Your task to perform on an android device: Check the weather Image 0: 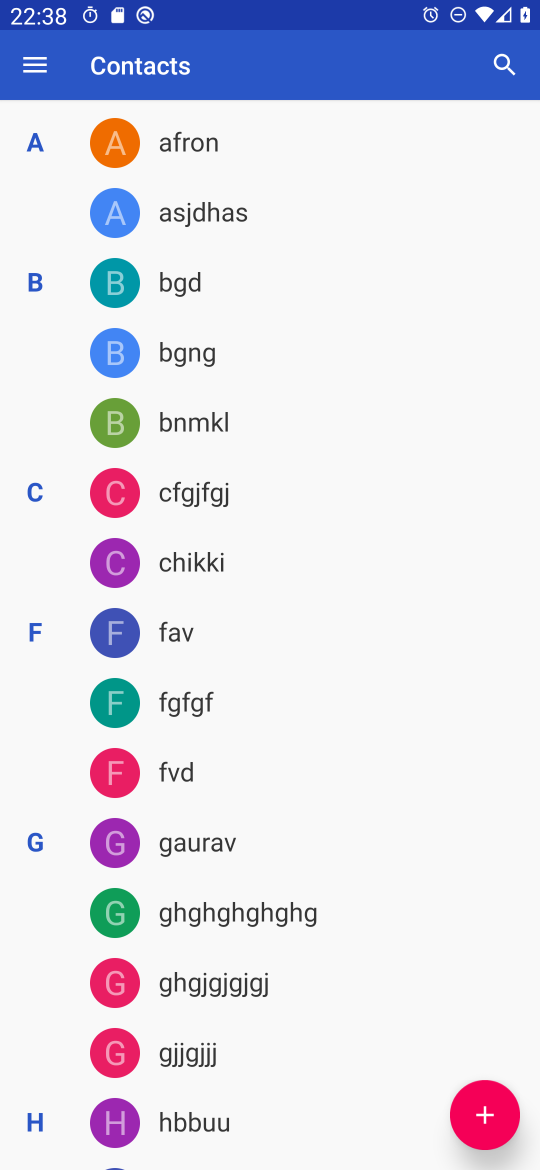
Step 0: press home button
Your task to perform on an android device: Check the weather Image 1: 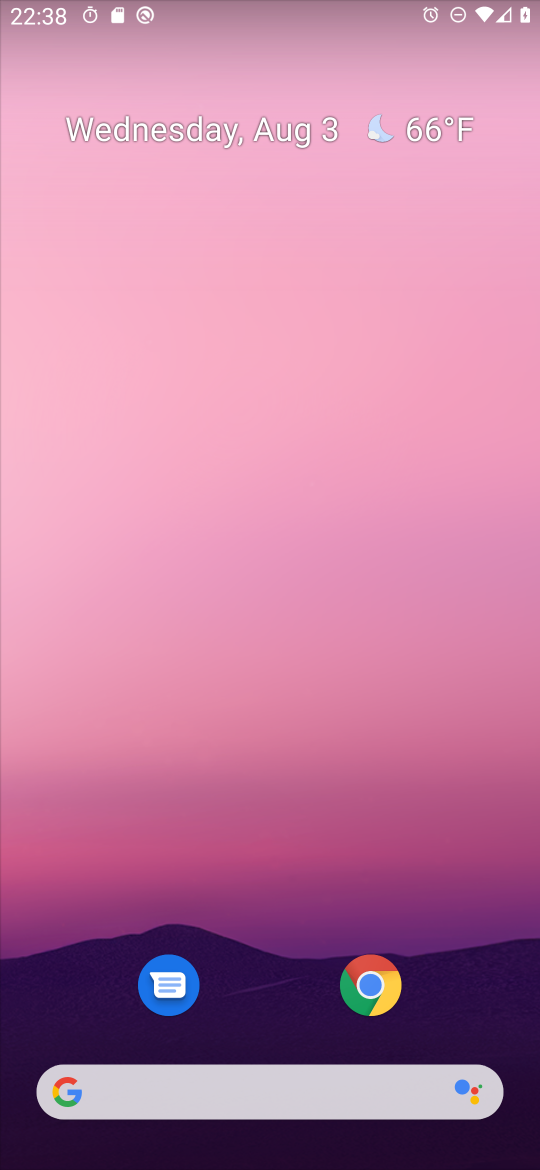
Step 1: drag from (258, 976) to (281, 307)
Your task to perform on an android device: Check the weather Image 2: 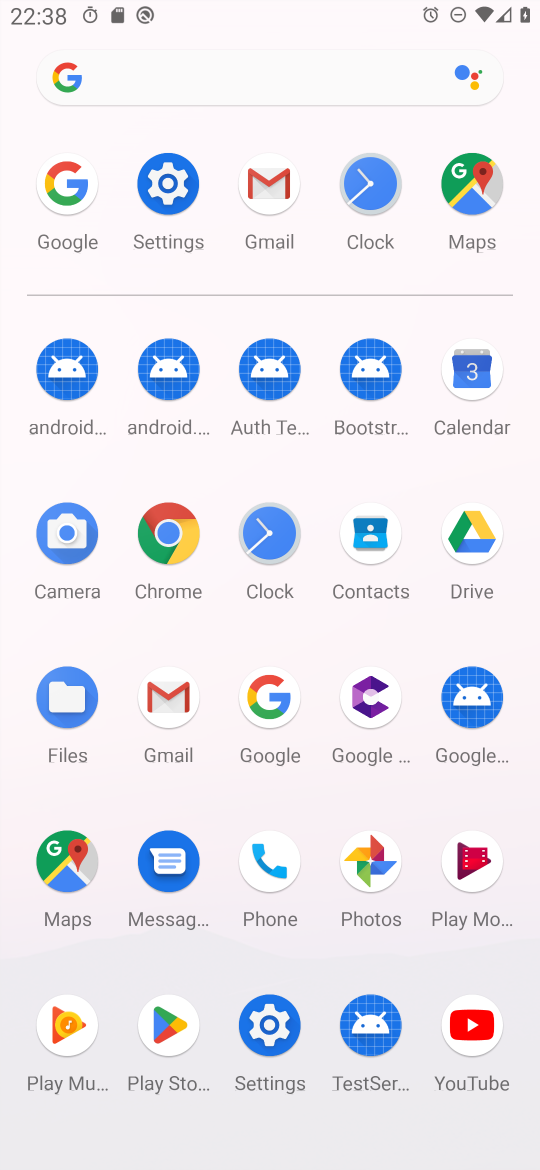
Step 2: click (72, 197)
Your task to perform on an android device: Check the weather Image 3: 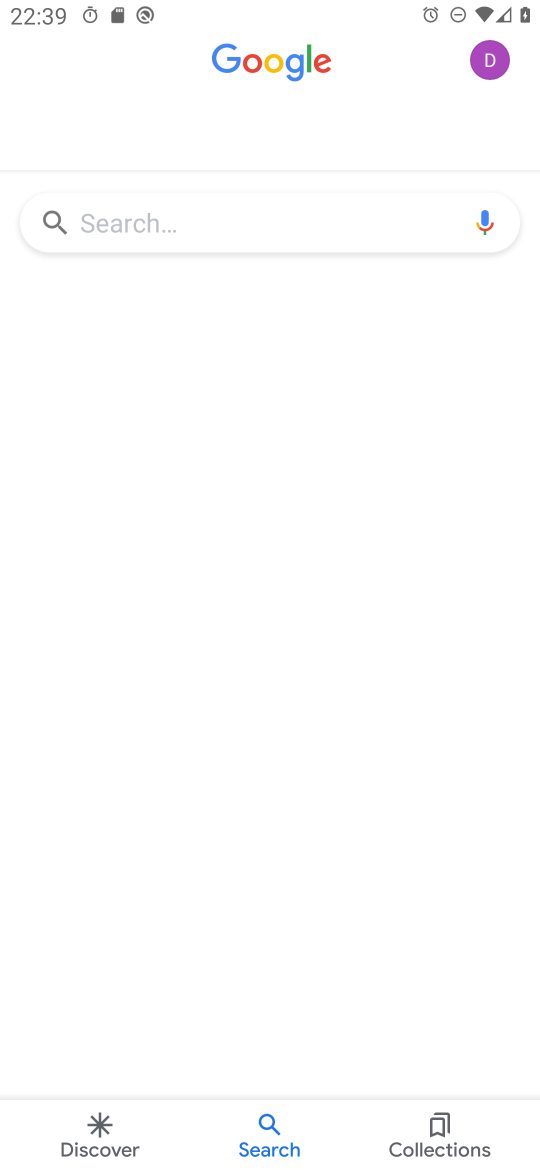
Step 3: press back button
Your task to perform on an android device: Check the weather Image 4: 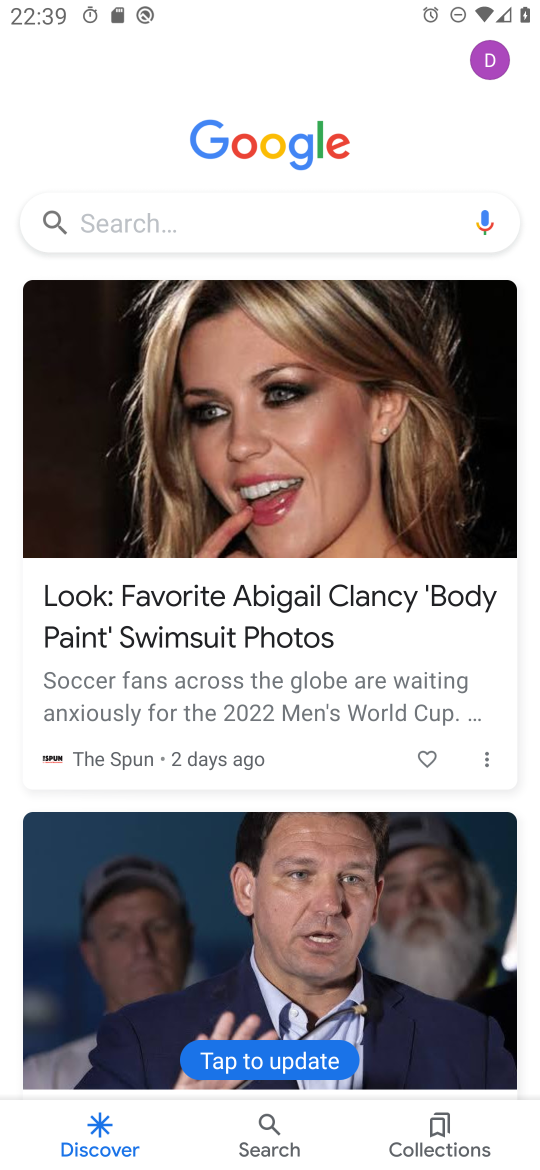
Step 4: click (250, 216)
Your task to perform on an android device: Check the weather Image 5: 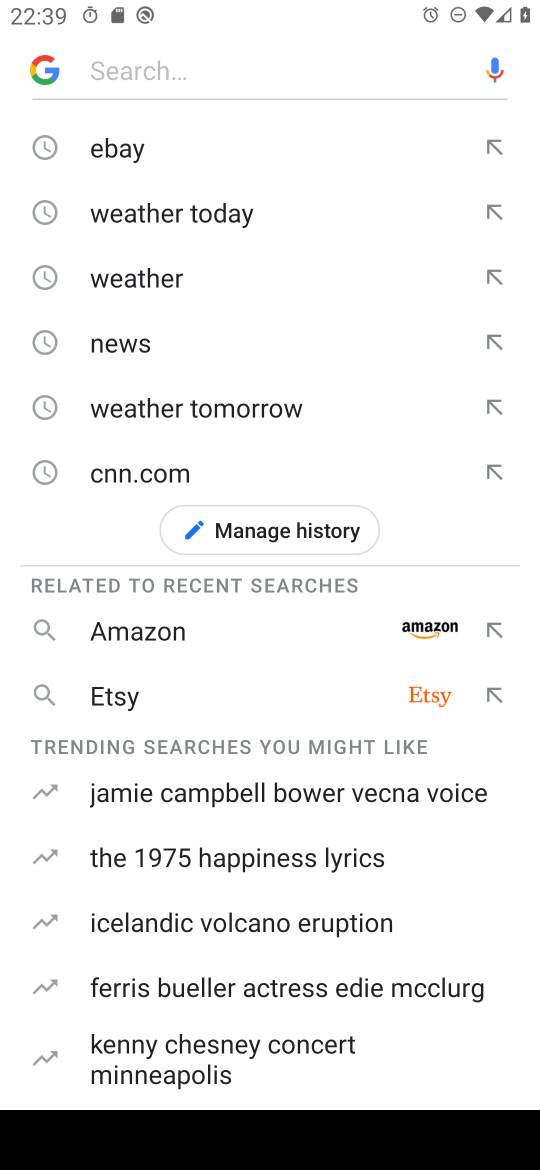
Step 5: type "weather"
Your task to perform on an android device: Check the weather Image 6: 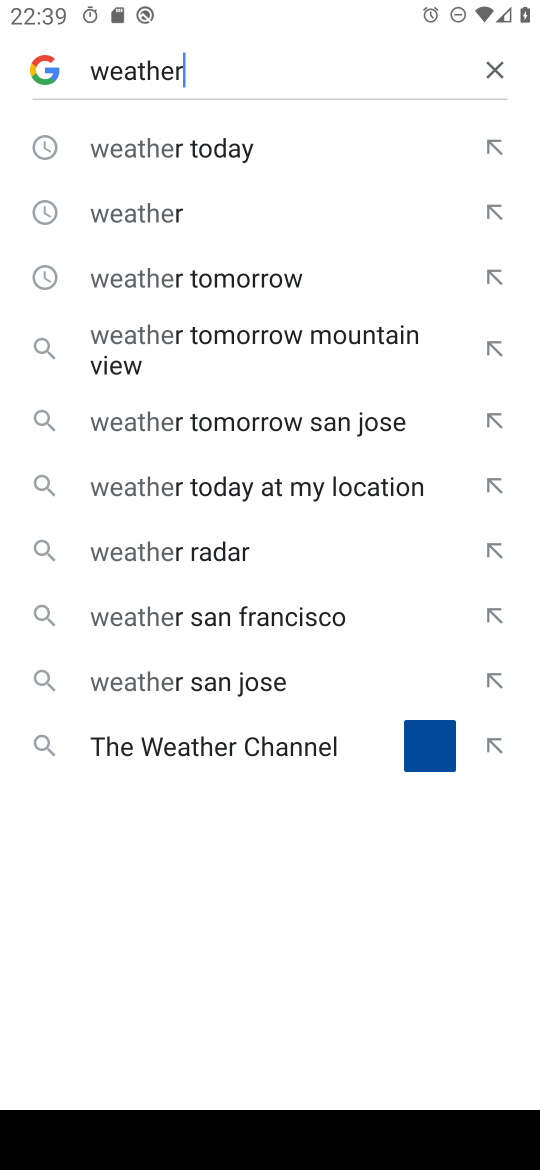
Step 6: type ""
Your task to perform on an android device: Check the weather Image 7: 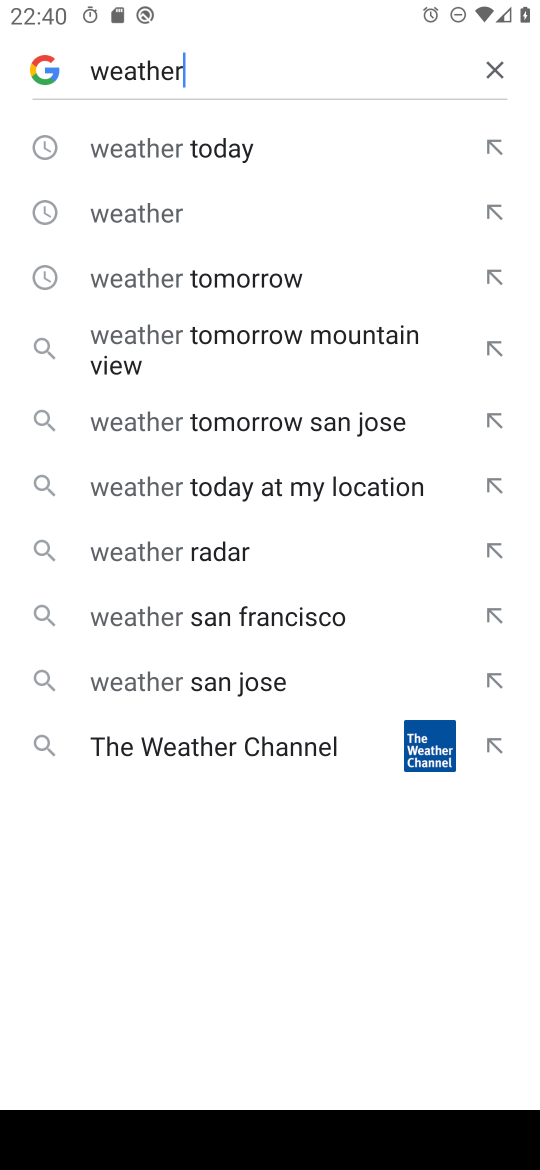
Step 7: click (186, 214)
Your task to perform on an android device: Check the weather Image 8: 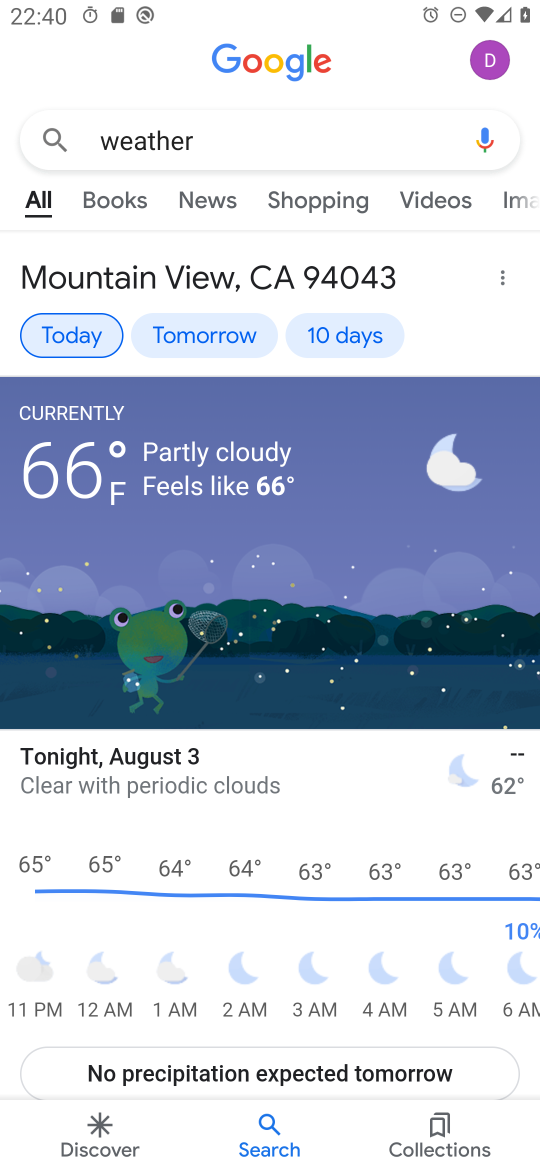
Step 8: task complete